Your task to perform on an android device: Go to notification settings Image 0: 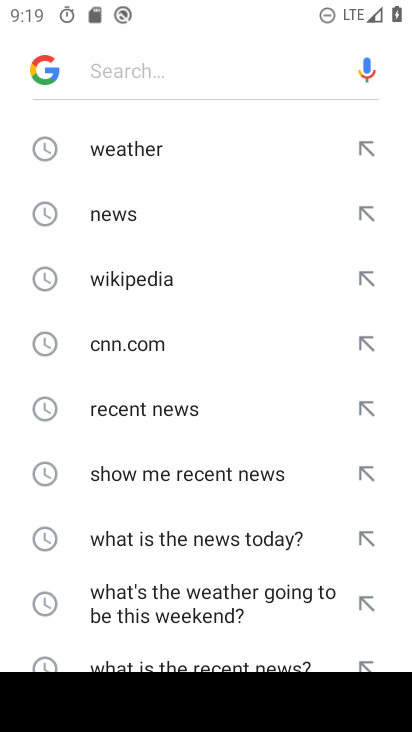
Step 0: press home button
Your task to perform on an android device: Go to notification settings Image 1: 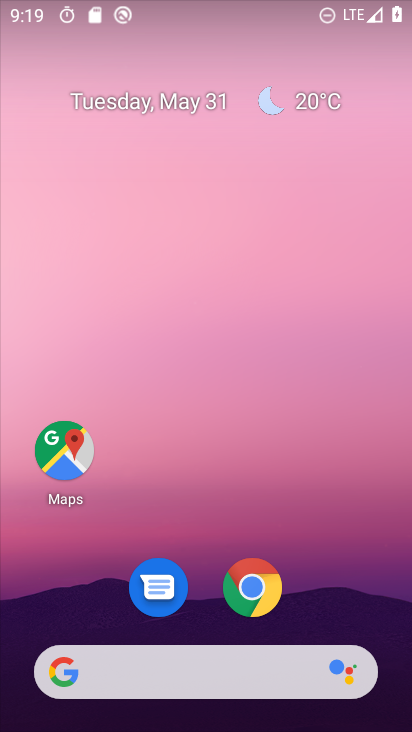
Step 1: drag from (201, 622) to (238, 44)
Your task to perform on an android device: Go to notification settings Image 2: 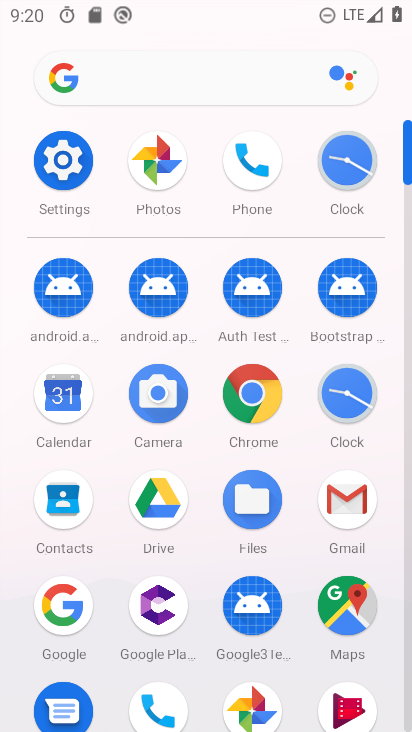
Step 2: click (75, 195)
Your task to perform on an android device: Go to notification settings Image 3: 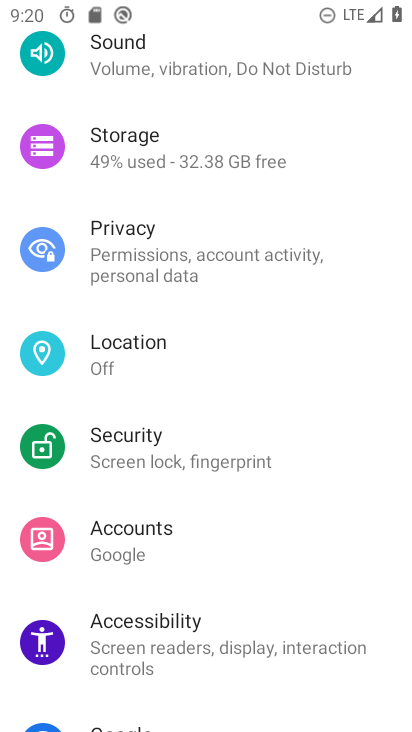
Step 3: drag from (232, 143) to (272, 648)
Your task to perform on an android device: Go to notification settings Image 4: 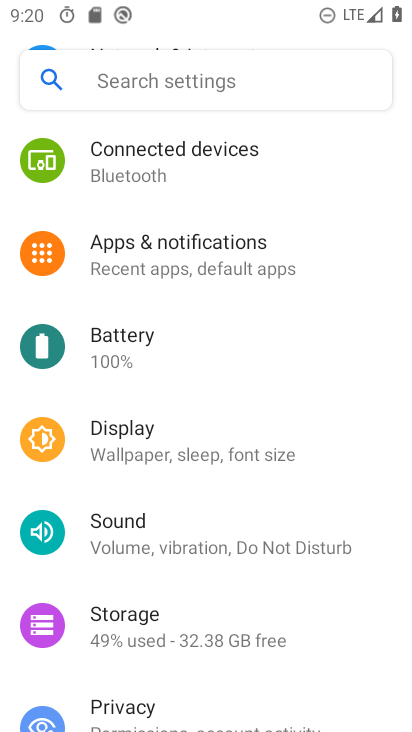
Step 4: click (183, 240)
Your task to perform on an android device: Go to notification settings Image 5: 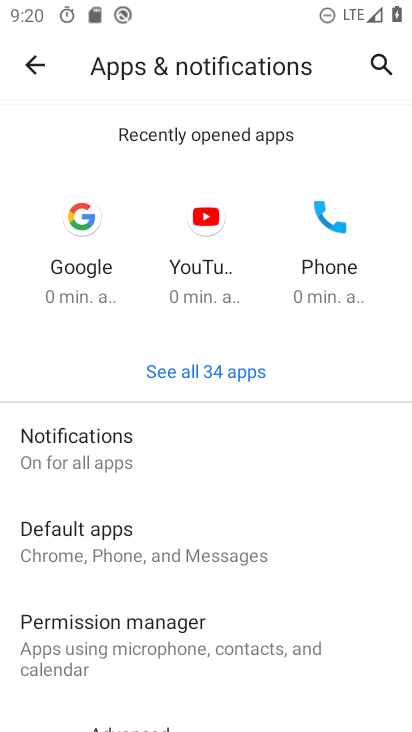
Step 5: task complete